Your task to perform on an android device: Go to sound settings Image 0: 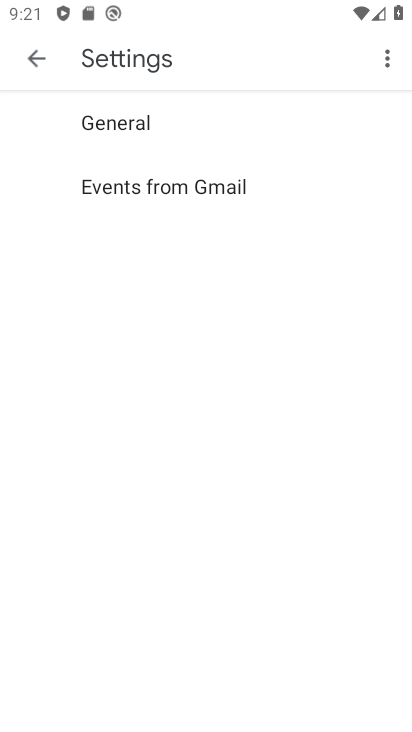
Step 0: press home button
Your task to perform on an android device: Go to sound settings Image 1: 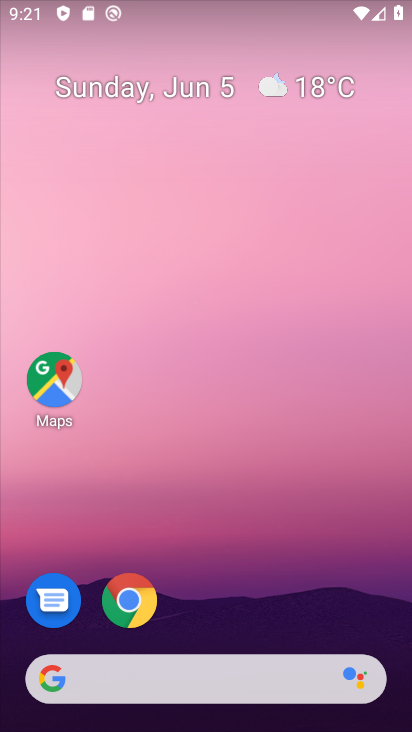
Step 1: drag from (337, 481) to (274, 146)
Your task to perform on an android device: Go to sound settings Image 2: 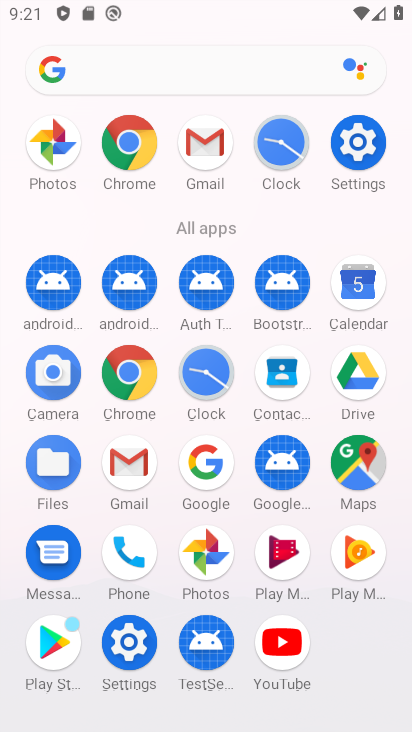
Step 2: click (372, 139)
Your task to perform on an android device: Go to sound settings Image 3: 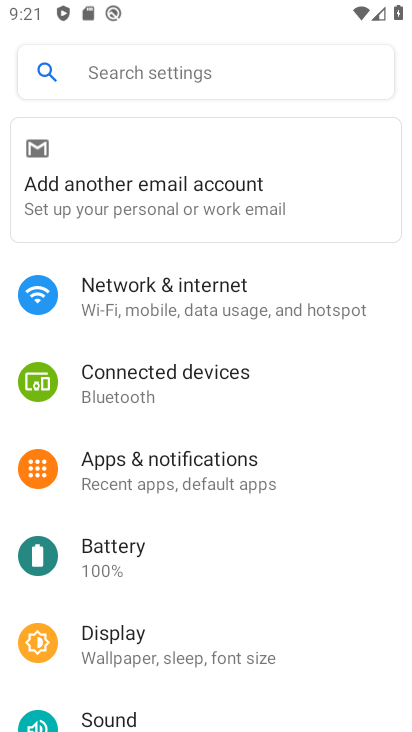
Step 3: click (115, 710)
Your task to perform on an android device: Go to sound settings Image 4: 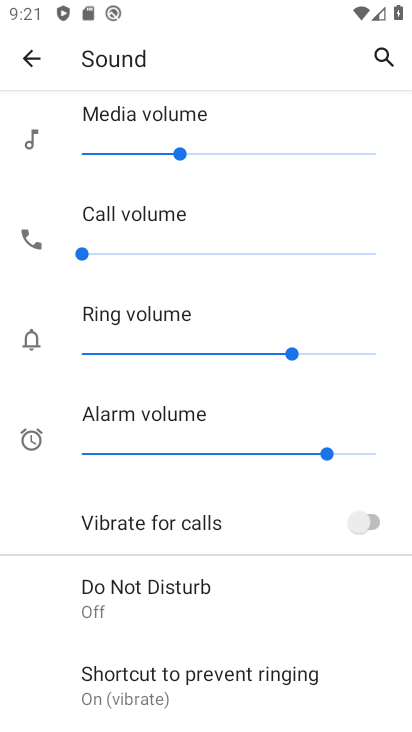
Step 4: task complete